Your task to perform on an android device: turn notification dots on Image 0: 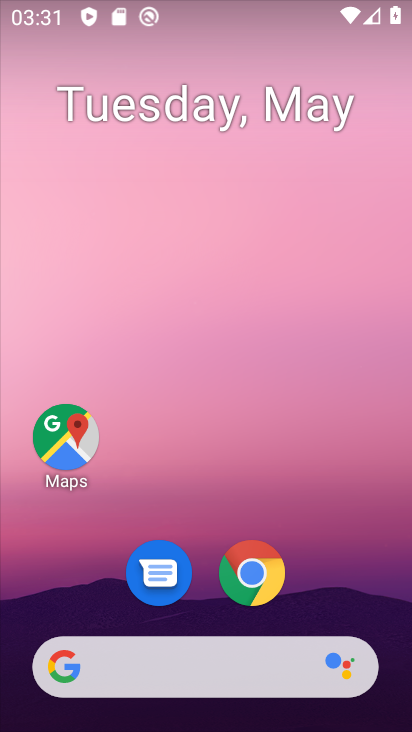
Step 0: drag from (108, 571) to (211, 109)
Your task to perform on an android device: turn notification dots on Image 1: 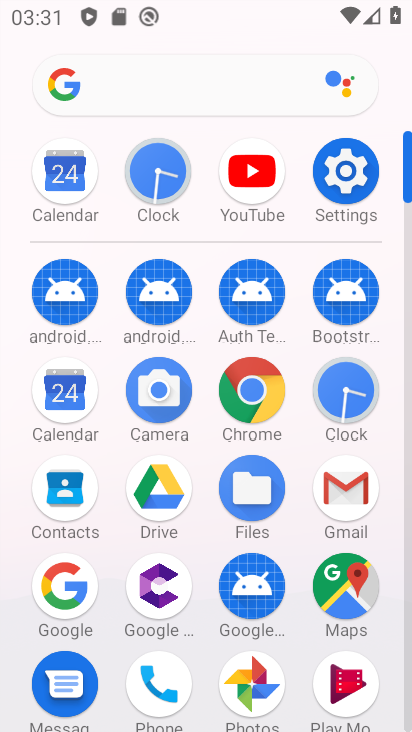
Step 1: click (346, 167)
Your task to perform on an android device: turn notification dots on Image 2: 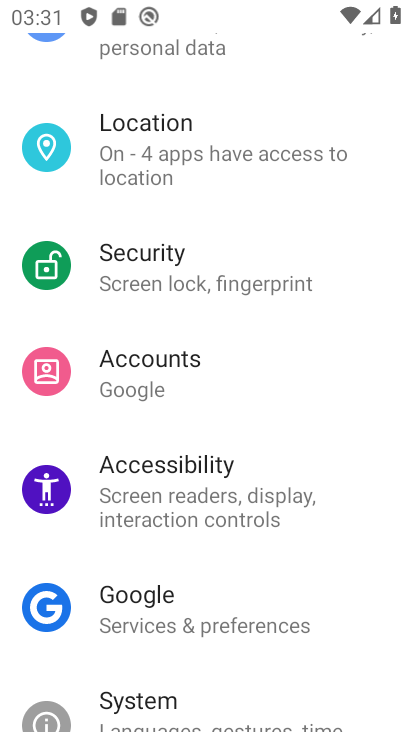
Step 2: drag from (323, 220) to (184, 725)
Your task to perform on an android device: turn notification dots on Image 3: 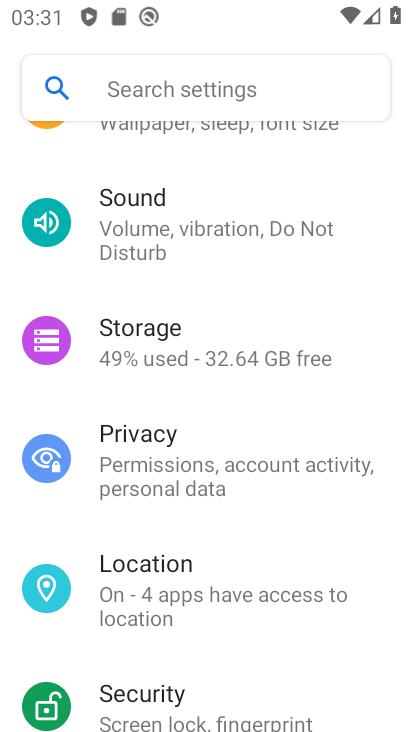
Step 3: drag from (197, 239) to (140, 610)
Your task to perform on an android device: turn notification dots on Image 4: 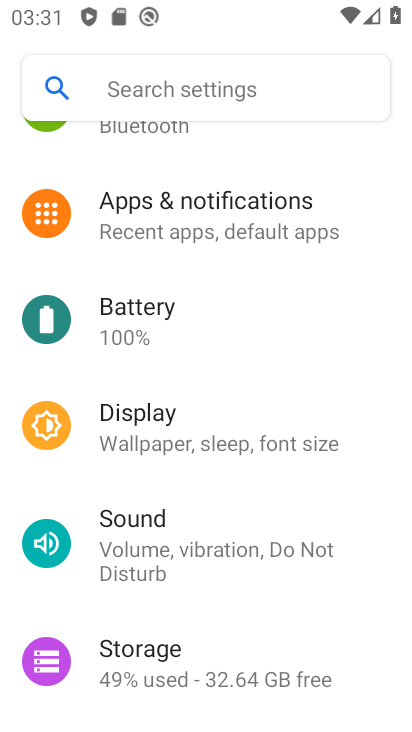
Step 4: click (186, 208)
Your task to perform on an android device: turn notification dots on Image 5: 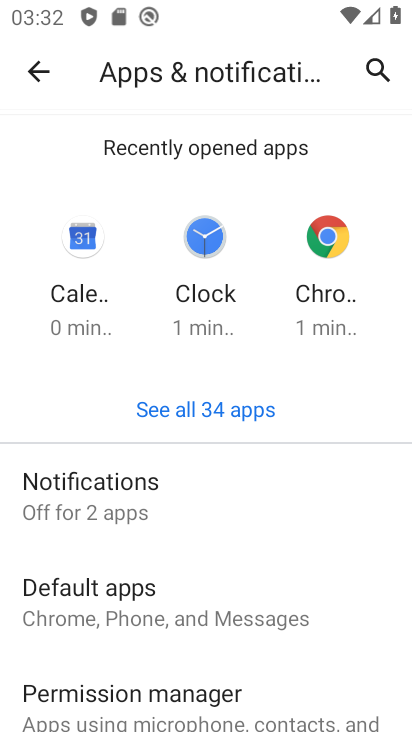
Step 5: click (173, 502)
Your task to perform on an android device: turn notification dots on Image 6: 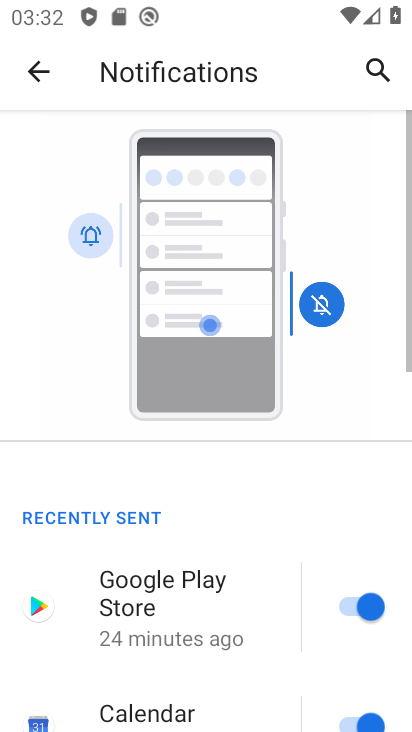
Step 6: drag from (138, 652) to (257, 113)
Your task to perform on an android device: turn notification dots on Image 7: 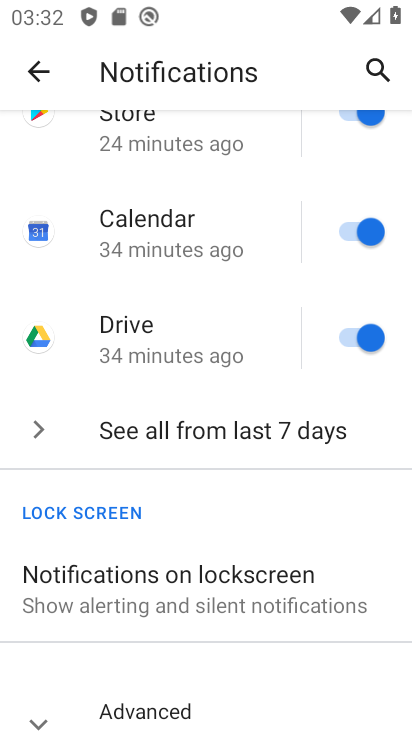
Step 7: drag from (198, 606) to (250, 72)
Your task to perform on an android device: turn notification dots on Image 8: 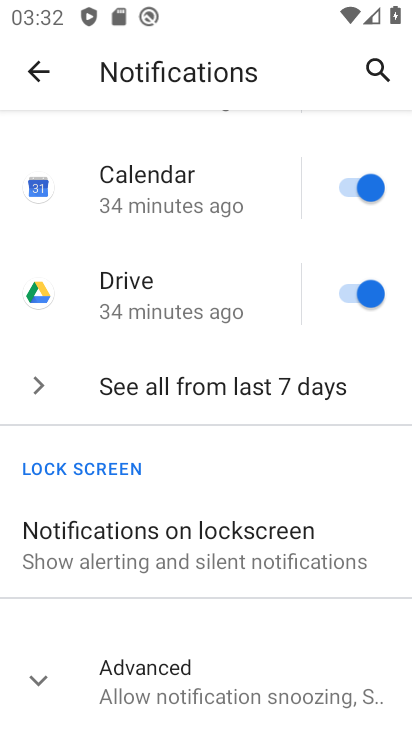
Step 8: click (160, 669)
Your task to perform on an android device: turn notification dots on Image 9: 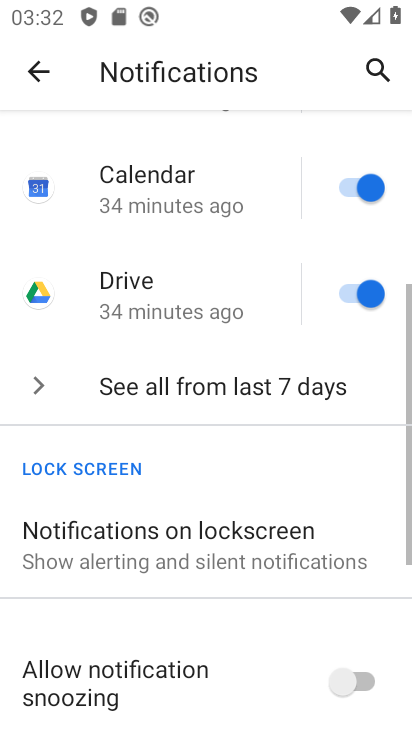
Step 9: task complete